Your task to perform on an android device: Open Amazon Image 0: 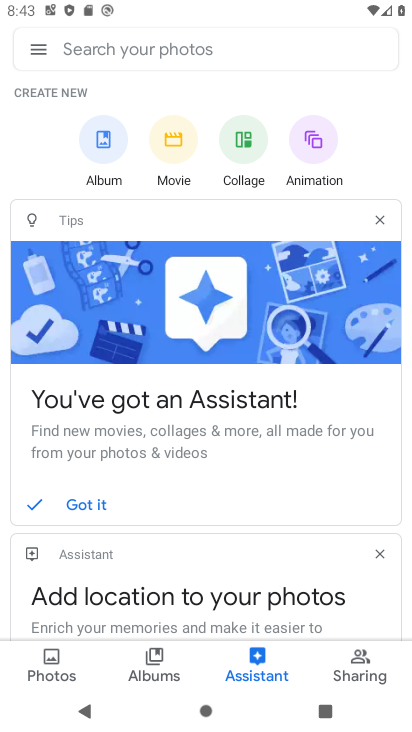
Step 0: press home button
Your task to perform on an android device: Open Amazon Image 1: 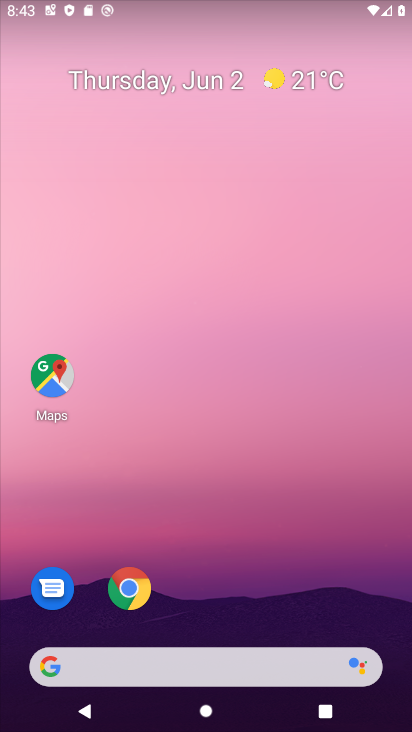
Step 1: click (131, 601)
Your task to perform on an android device: Open Amazon Image 2: 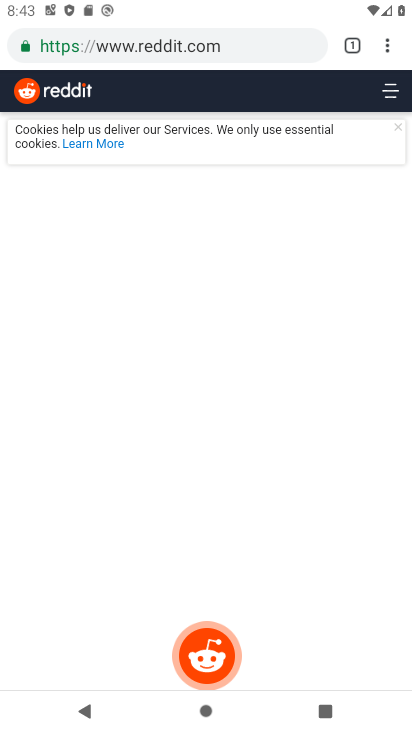
Step 2: click (227, 56)
Your task to perform on an android device: Open Amazon Image 3: 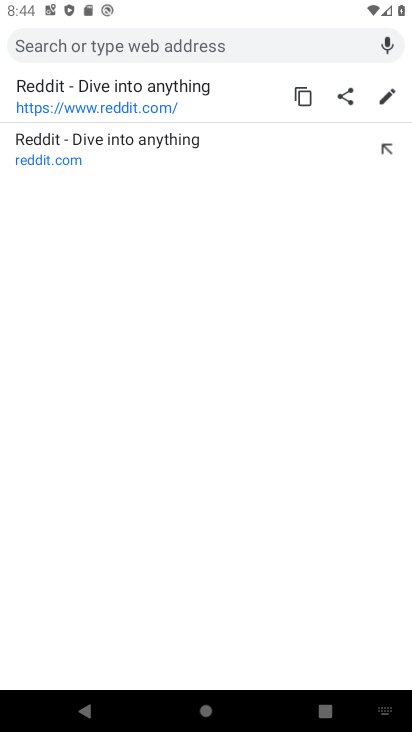
Step 3: type "amazon"
Your task to perform on an android device: Open Amazon Image 4: 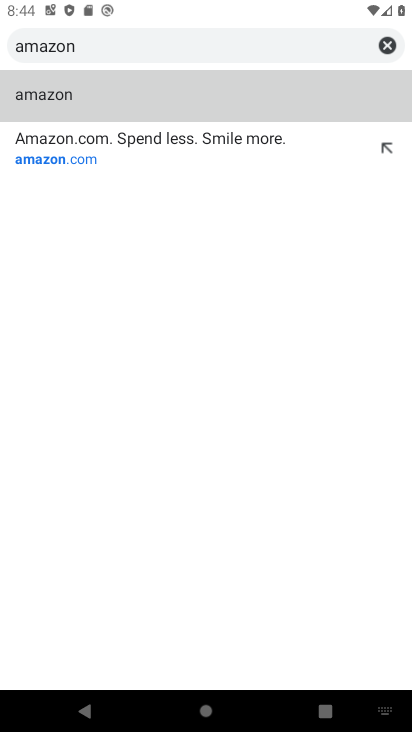
Step 4: click (170, 157)
Your task to perform on an android device: Open Amazon Image 5: 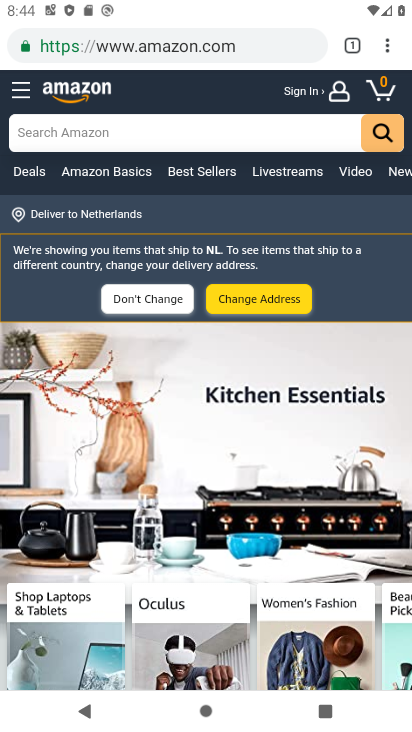
Step 5: task complete